Your task to perform on an android device: add a label to a message in the gmail app Image 0: 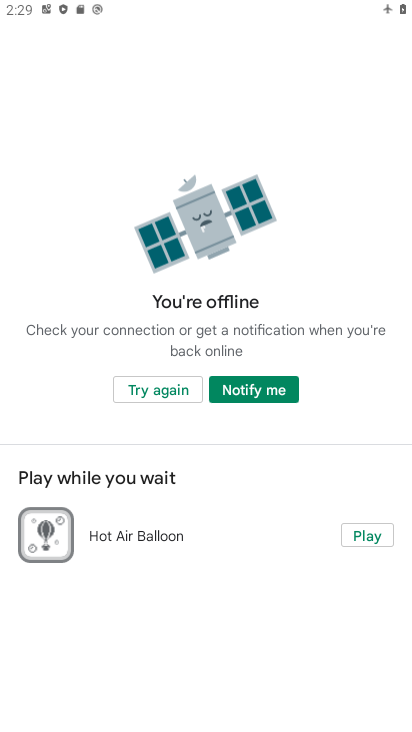
Step 0: press home button
Your task to perform on an android device: add a label to a message in the gmail app Image 1: 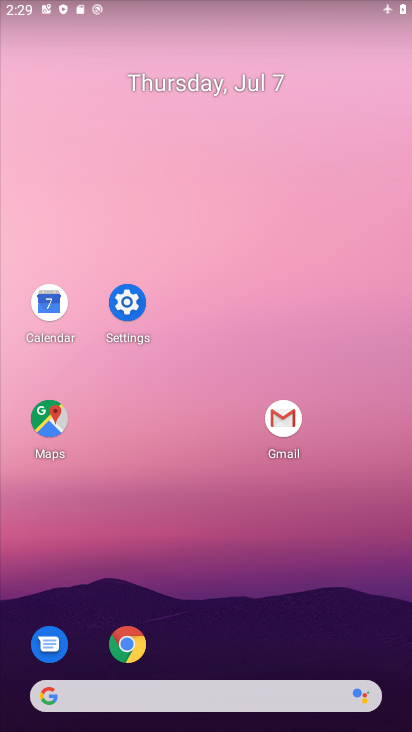
Step 1: click (285, 433)
Your task to perform on an android device: add a label to a message in the gmail app Image 2: 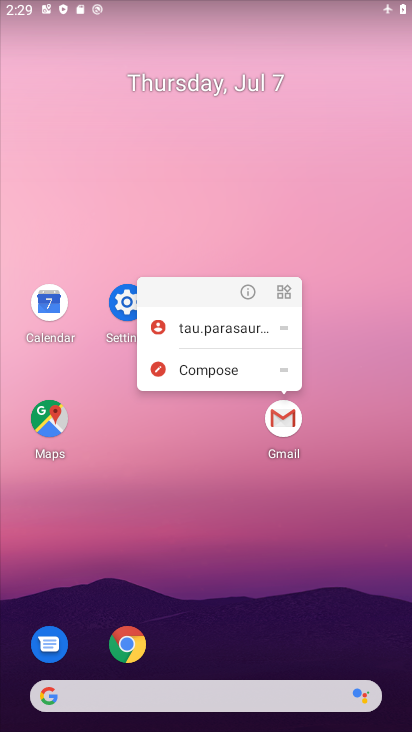
Step 2: click (275, 417)
Your task to perform on an android device: add a label to a message in the gmail app Image 3: 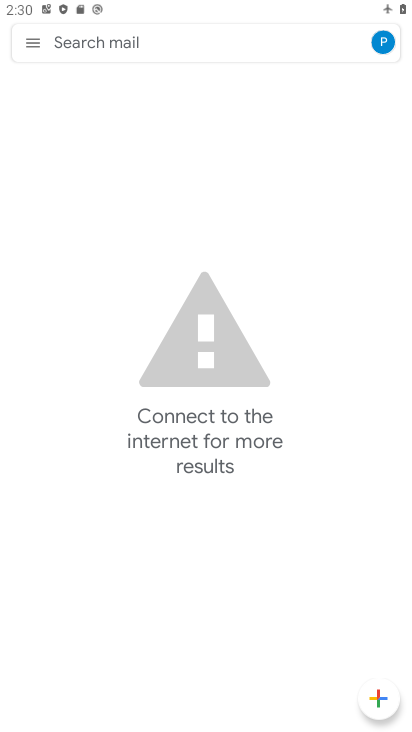
Step 3: task complete